Your task to perform on an android device: turn off translation in the chrome app Image 0: 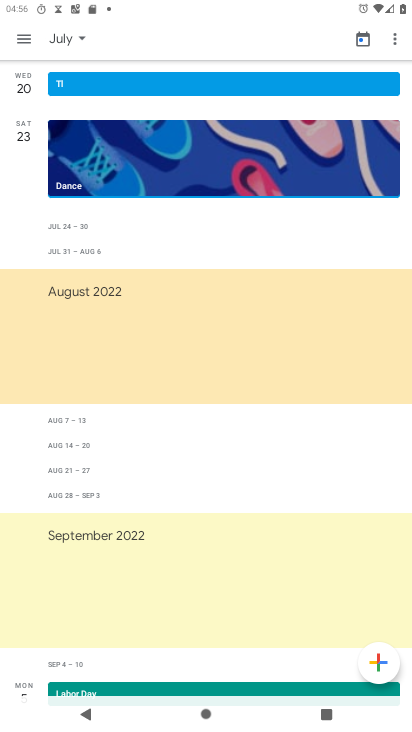
Step 0: press home button
Your task to perform on an android device: turn off translation in the chrome app Image 1: 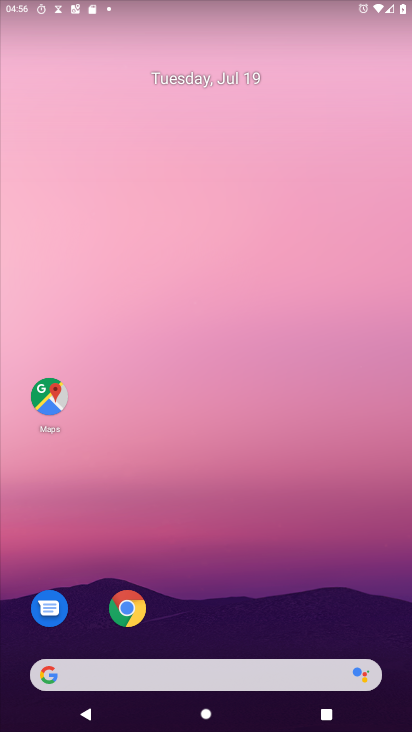
Step 1: click (126, 608)
Your task to perform on an android device: turn off translation in the chrome app Image 2: 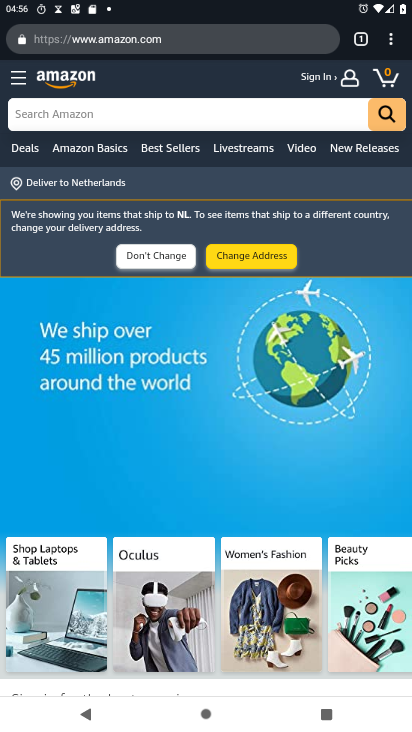
Step 2: click (392, 40)
Your task to perform on an android device: turn off translation in the chrome app Image 3: 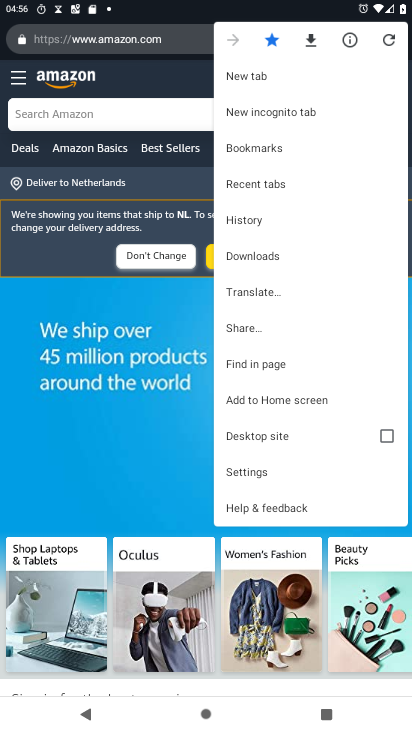
Step 3: click (249, 475)
Your task to perform on an android device: turn off translation in the chrome app Image 4: 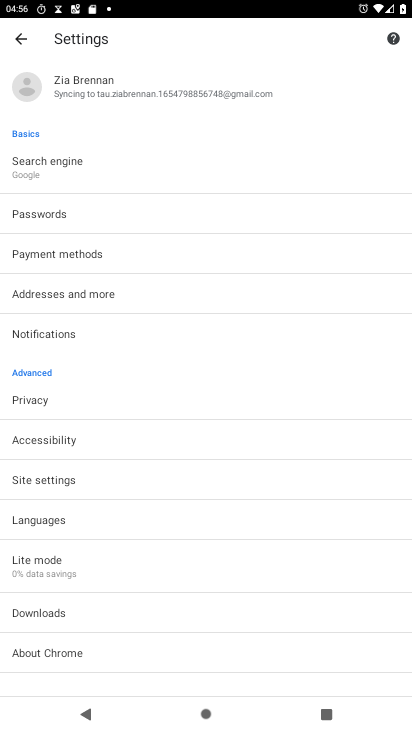
Step 4: click (58, 522)
Your task to perform on an android device: turn off translation in the chrome app Image 5: 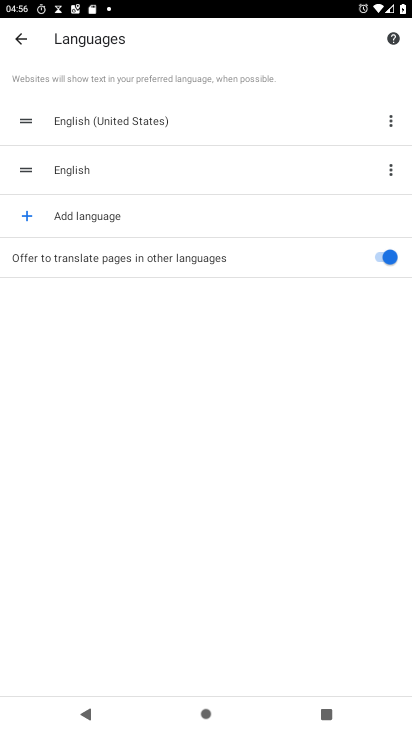
Step 5: click (387, 263)
Your task to perform on an android device: turn off translation in the chrome app Image 6: 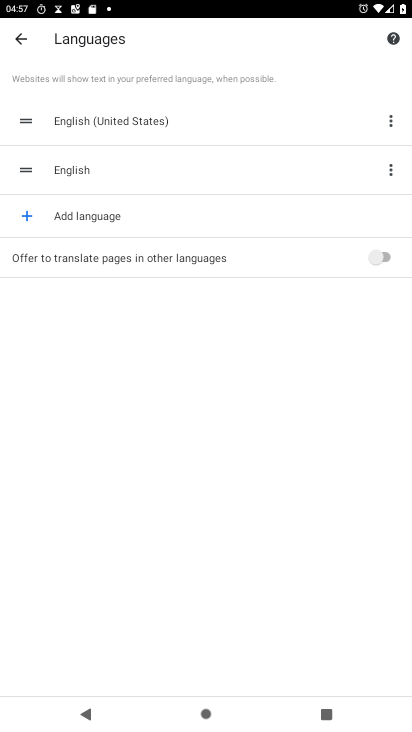
Step 6: task complete